Your task to perform on an android device: Go to calendar. Show me events next week Image 0: 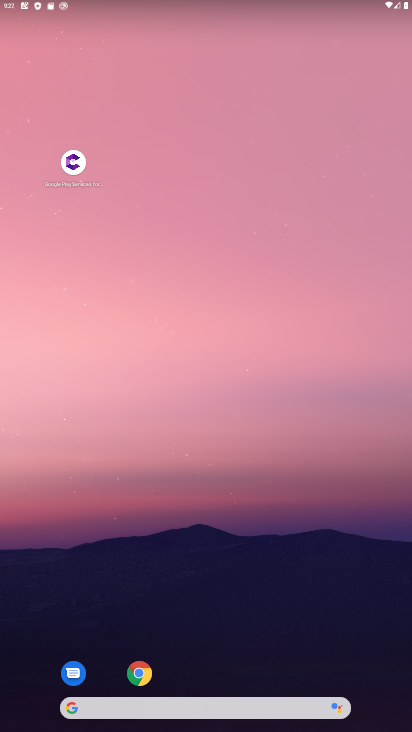
Step 0: drag from (266, 610) to (262, 58)
Your task to perform on an android device: Go to calendar. Show me events next week Image 1: 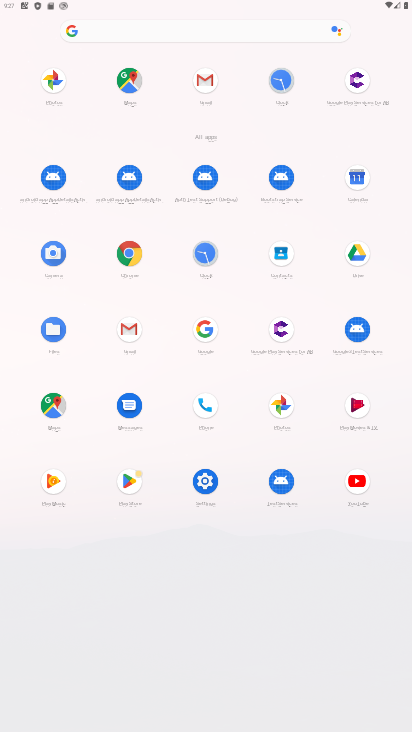
Step 1: click (356, 180)
Your task to perform on an android device: Go to calendar. Show me events next week Image 2: 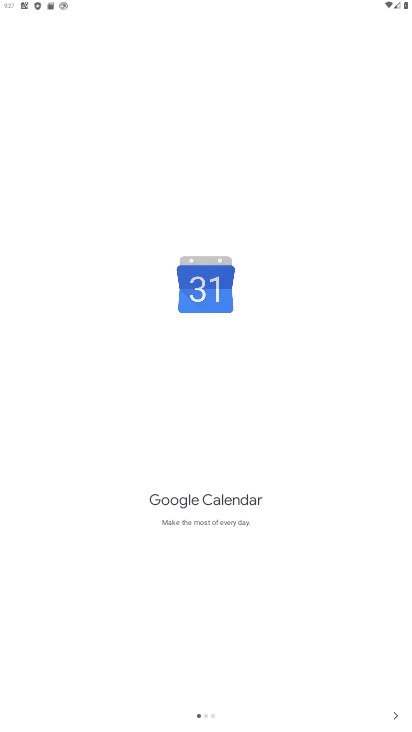
Step 2: click (398, 715)
Your task to perform on an android device: Go to calendar. Show me events next week Image 3: 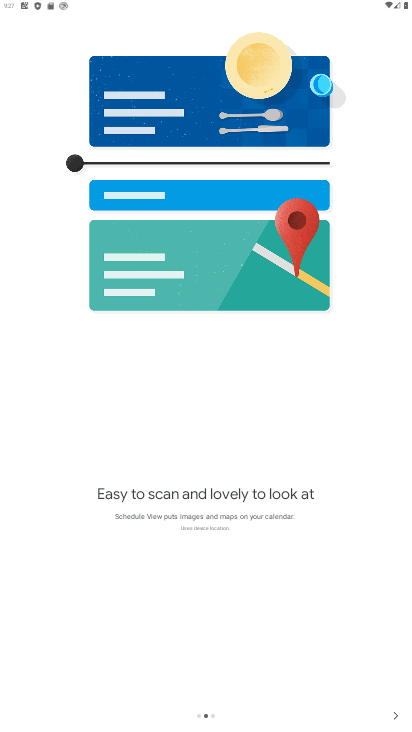
Step 3: click (398, 713)
Your task to perform on an android device: Go to calendar. Show me events next week Image 4: 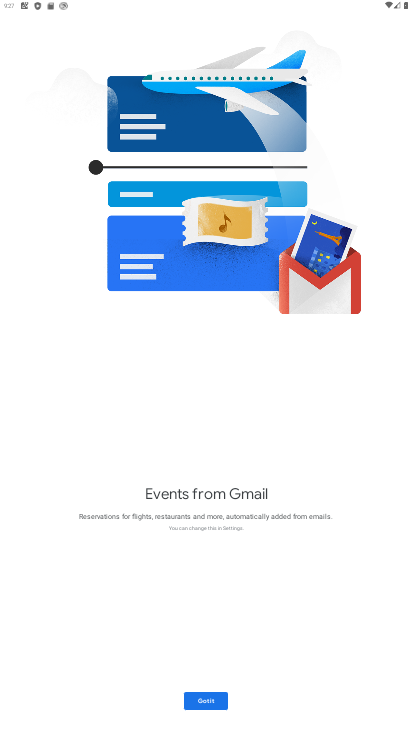
Step 4: click (225, 706)
Your task to perform on an android device: Go to calendar. Show me events next week Image 5: 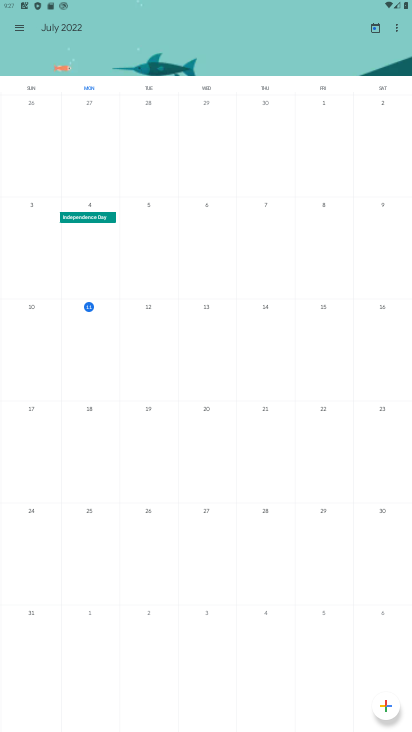
Step 5: click (19, 28)
Your task to perform on an android device: Go to calendar. Show me events next week Image 6: 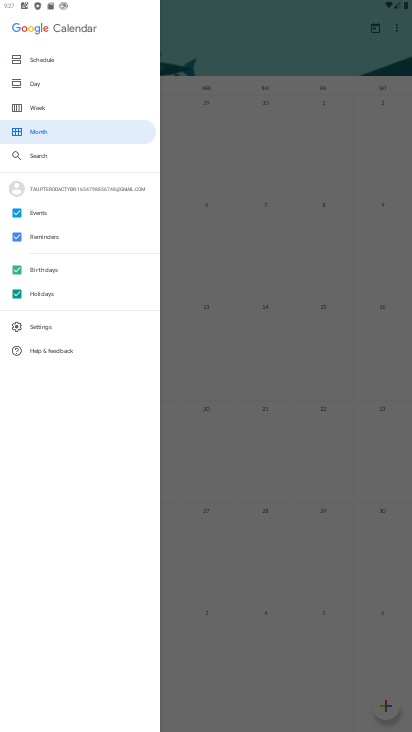
Step 6: click (51, 104)
Your task to perform on an android device: Go to calendar. Show me events next week Image 7: 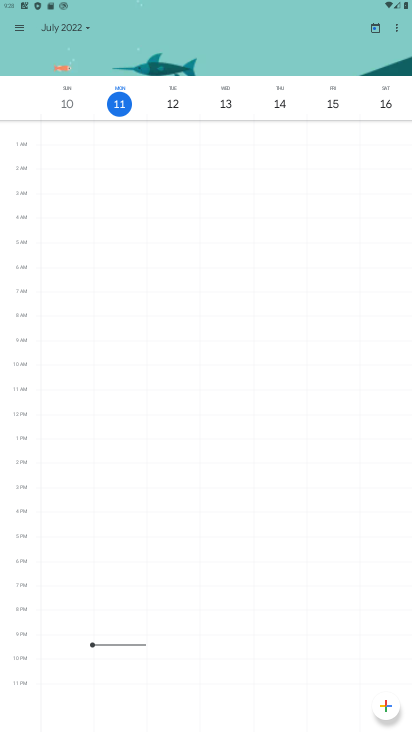
Step 7: click (78, 24)
Your task to perform on an android device: Go to calendar. Show me events next week Image 8: 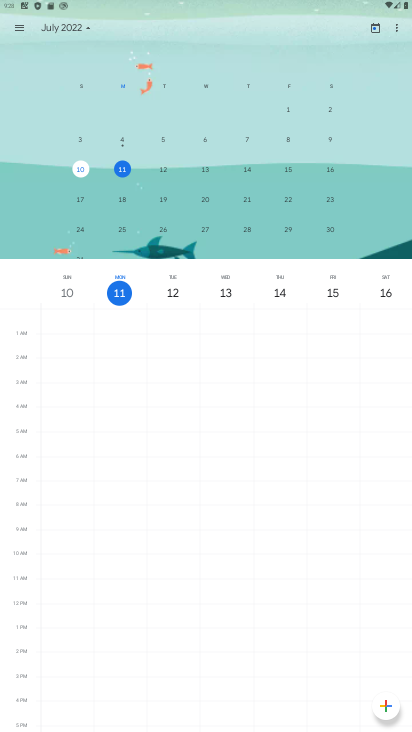
Step 8: click (124, 203)
Your task to perform on an android device: Go to calendar. Show me events next week Image 9: 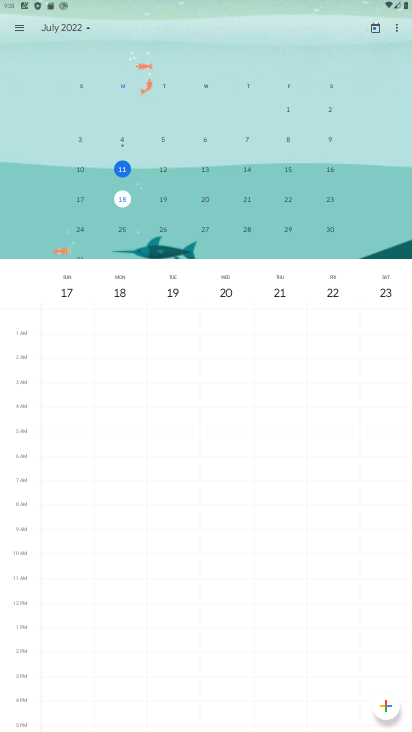
Step 9: task complete